Your task to perform on an android device: Search for "logitech g933" on bestbuy, select the first entry, add it to the cart, then select checkout. Image 0: 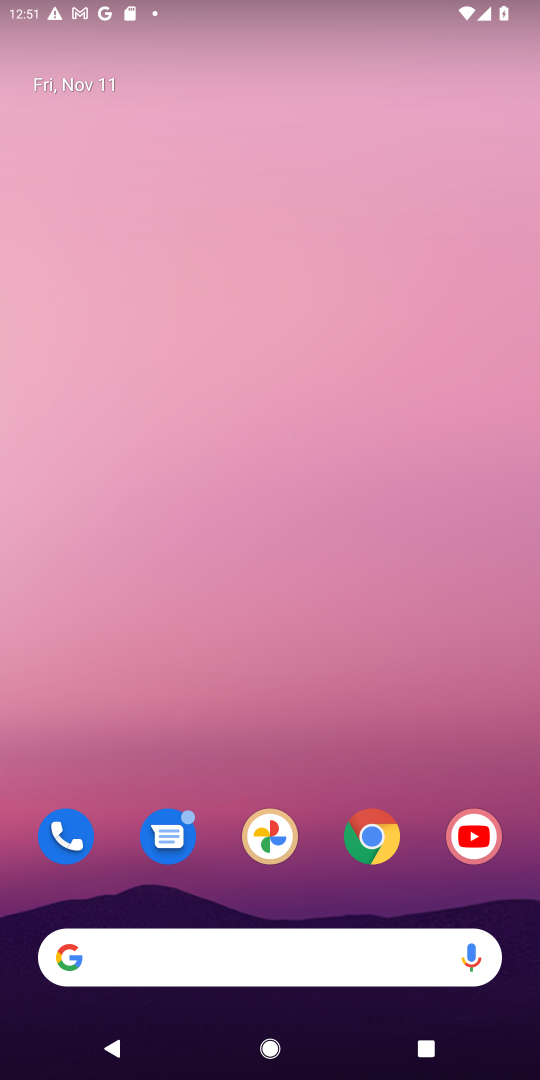
Step 0: click (270, 959)
Your task to perform on an android device: Search for "logitech g933" on bestbuy, select the first entry, add it to the cart, then select checkout. Image 1: 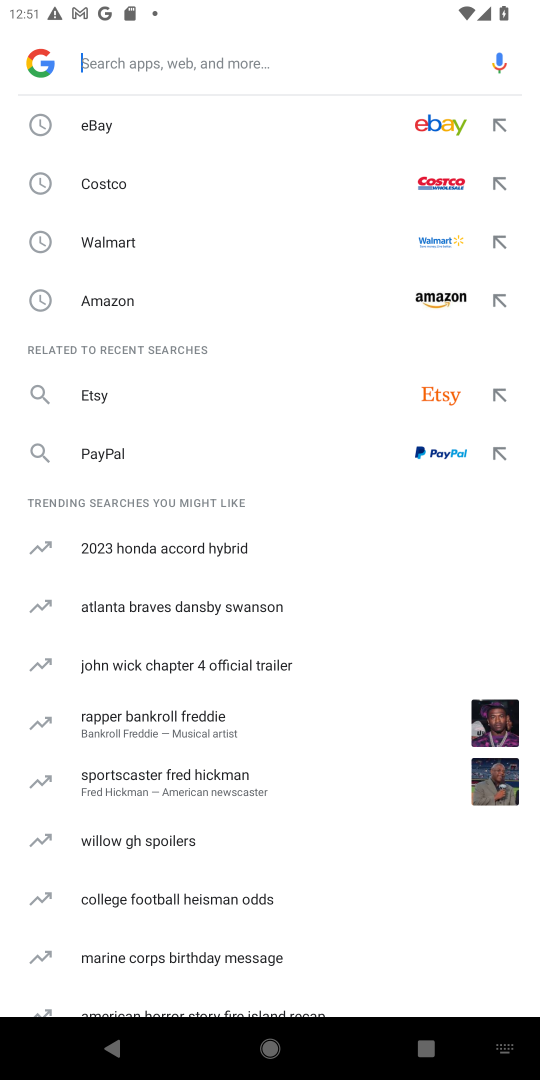
Step 1: type "bestbuy"
Your task to perform on an android device: Search for "logitech g933" on bestbuy, select the first entry, add it to the cart, then select checkout. Image 2: 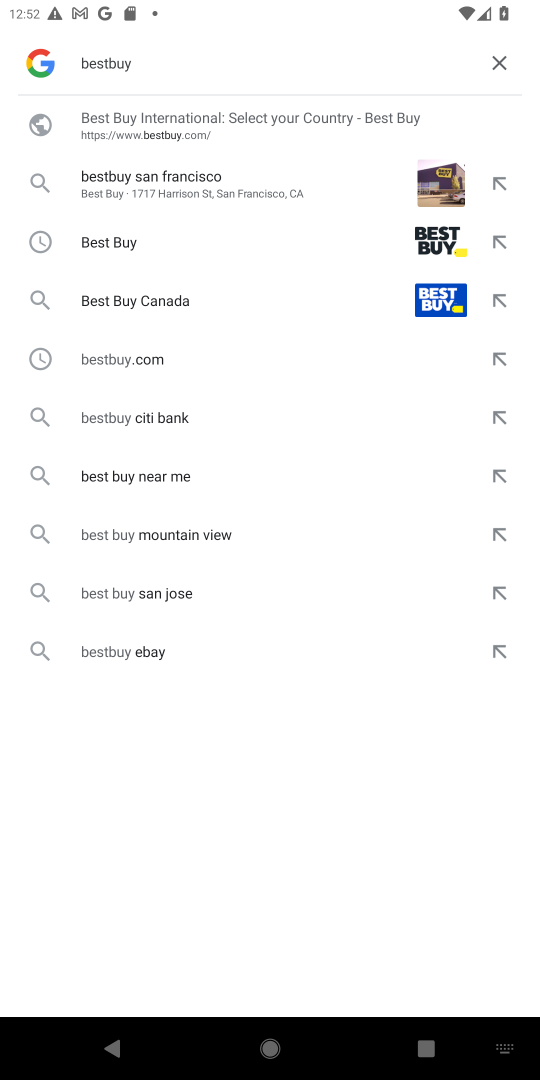
Step 2: click (286, 238)
Your task to perform on an android device: Search for "logitech g933" on bestbuy, select the first entry, add it to the cart, then select checkout. Image 3: 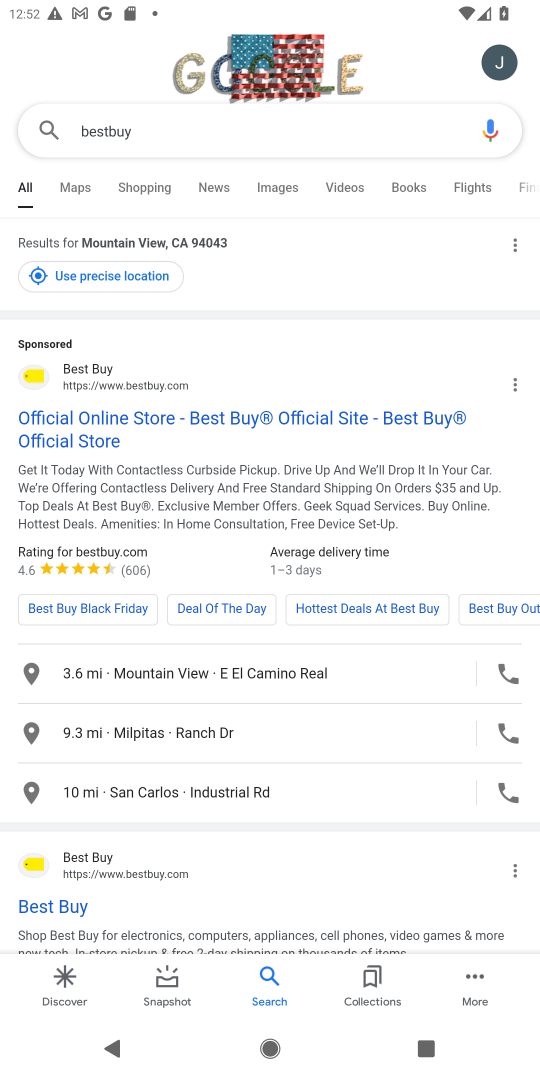
Step 3: click (65, 411)
Your task to perform on an android device: Search for "logitech g933" on bestbuy, select the first entry, add it to the cart, then select checkout. Image 4: 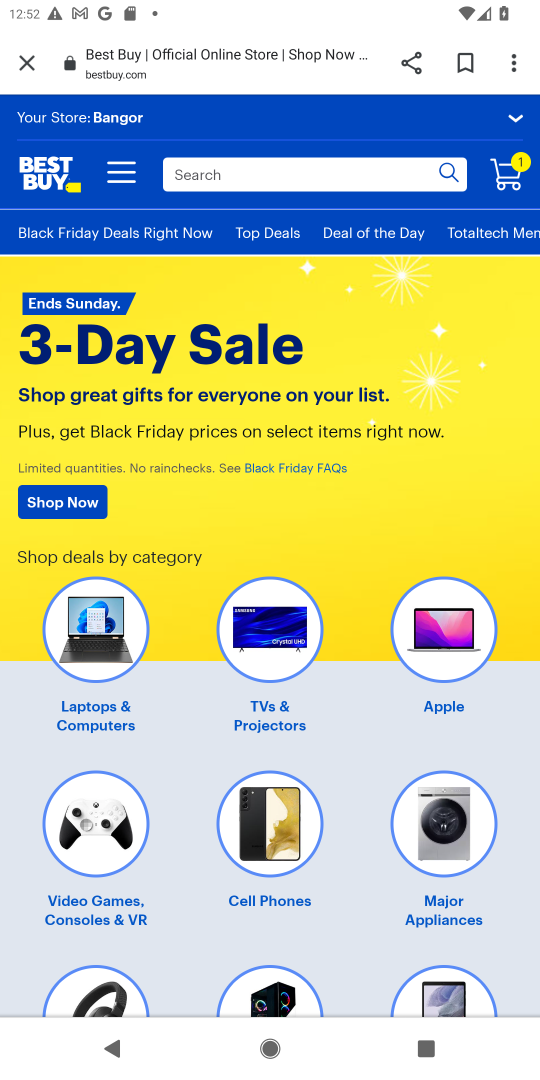
Step 4: click (256, 165)
Your task to perform on an android device: Search for "logitech g933" on bestbuy, select the first entry, add it to the cart, then select checkout. Image 5: 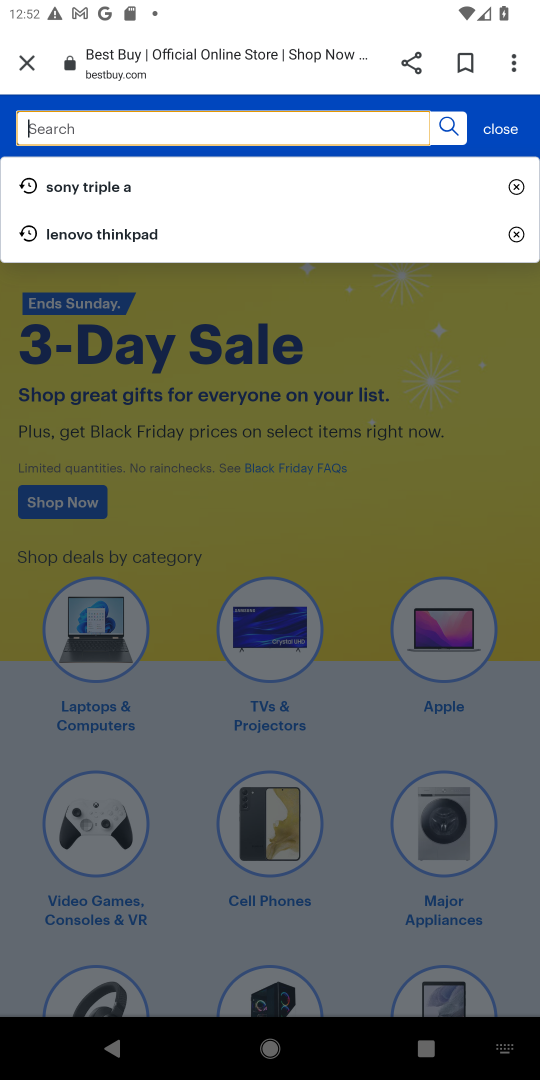
Step 5: type "logitech g933"
Your task to perform on an android device: Search for "logitech g933" on bestbuy, select the first entry, add it to the cart, then select checkout. Image 6: 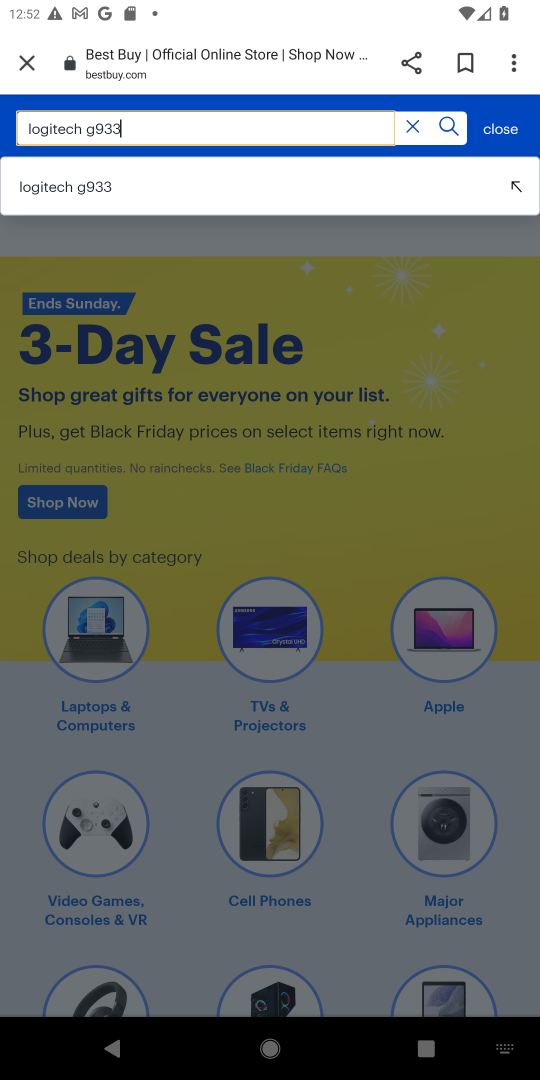
Step 6: click (91, 177)
Your task to perform on an android device: Search for "logitech g933" on bestbuy, select the first entry, add it to the cart, then select checkout. Image 7: 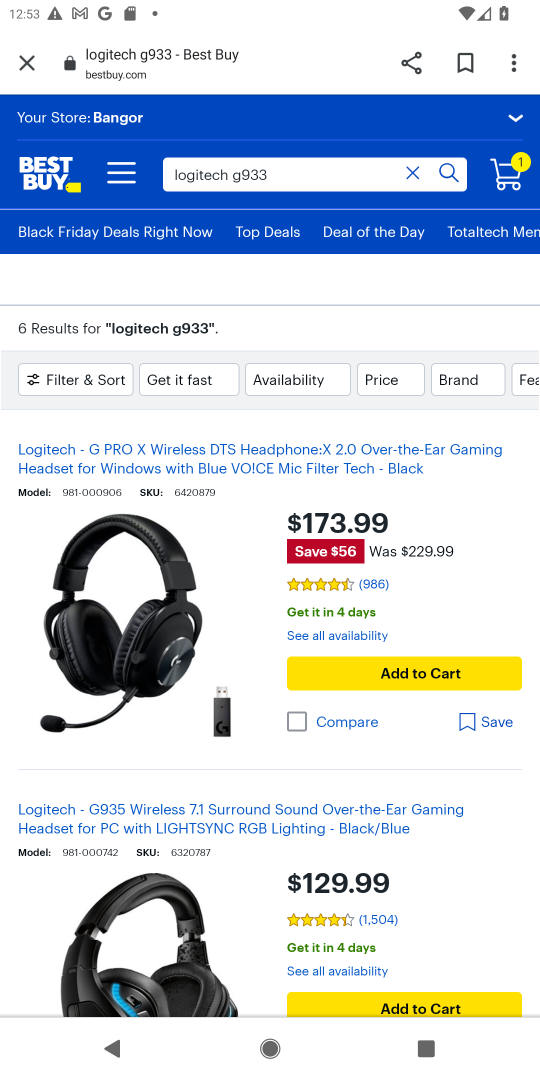
Step 7: click (370, 562)
Your task to perform on an android device: Search for "logitech g933" on bestbuy, select the first entry, add it to the cart, then select checkout. Image 8: 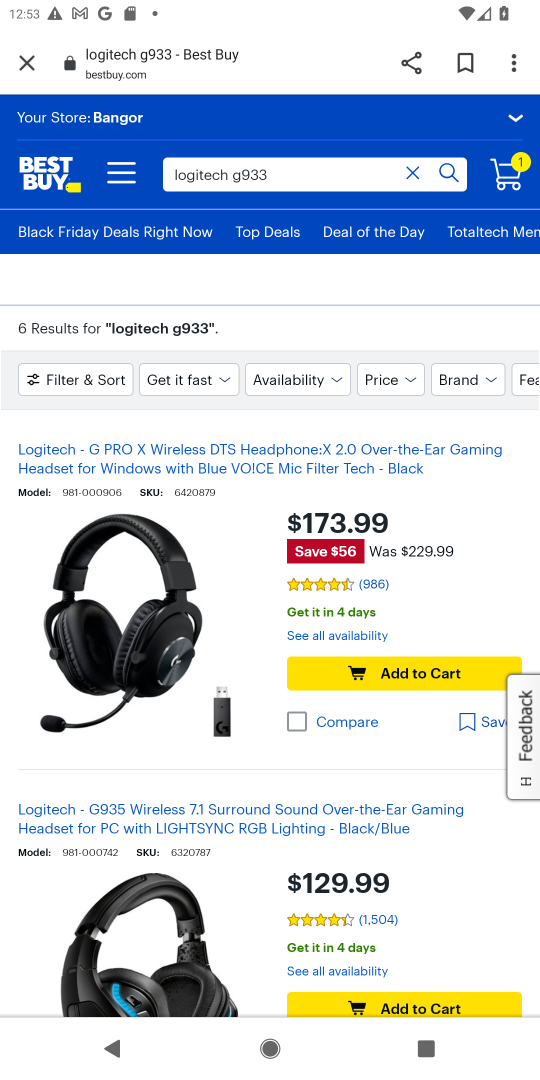
Step 8: click (378, 675)
Your task to perform on an android device: Search for "logitech g933" on bestbuy, select the first entry, add it to the cart, then select checkout. Image 9: 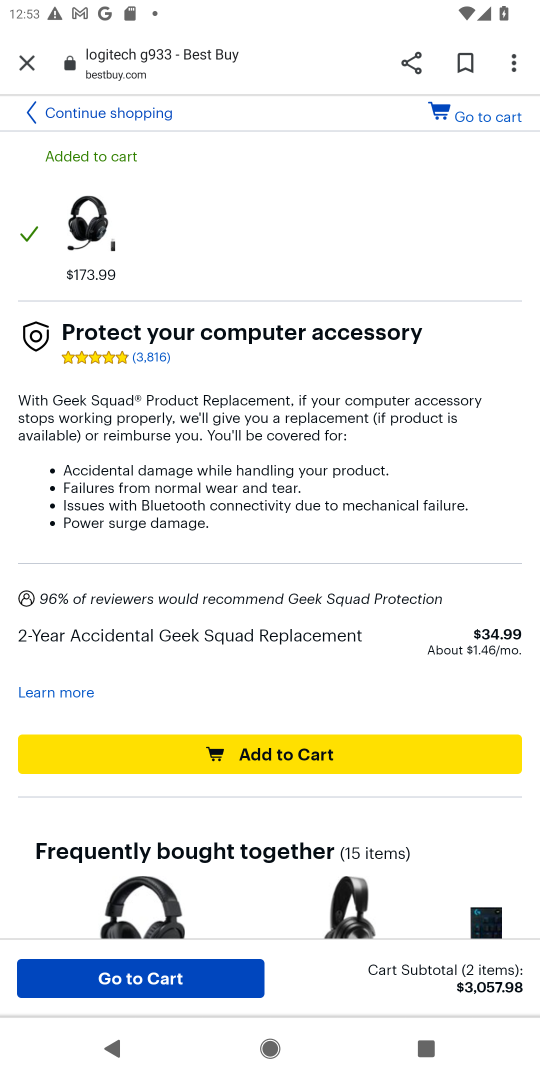
Step 9: click (453, 122)
Your task to perform on an android device: Search for "logitech g933" on bestbuy, select the first entry, add it to the cart, then select checkout. Image 10: 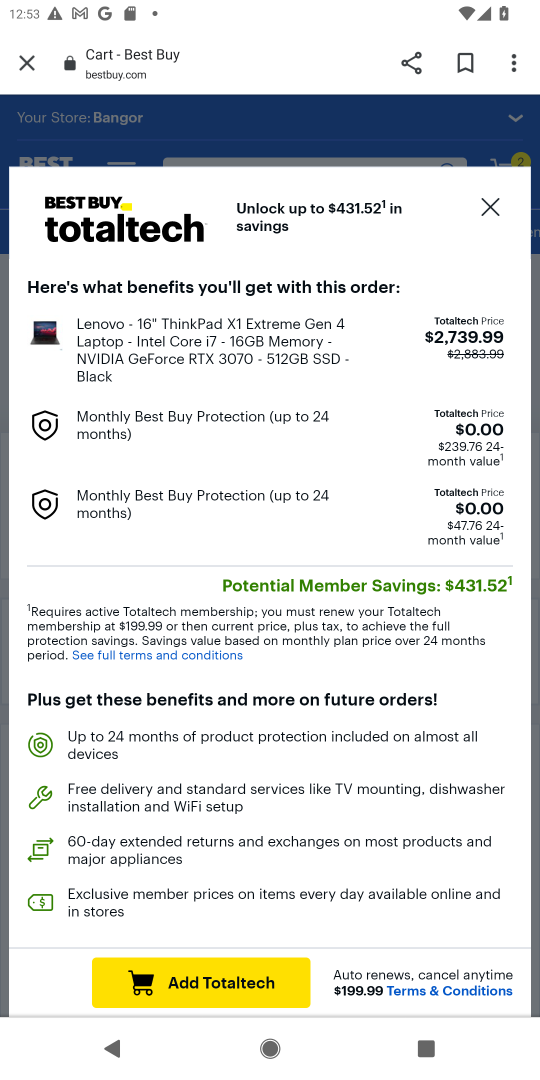
Step 10: click (487, 206)
Your task to perform on an android device: Search for "logitech g933" on bestbuy, select the first entry, add it to the cart, then select checkout. Image 11: 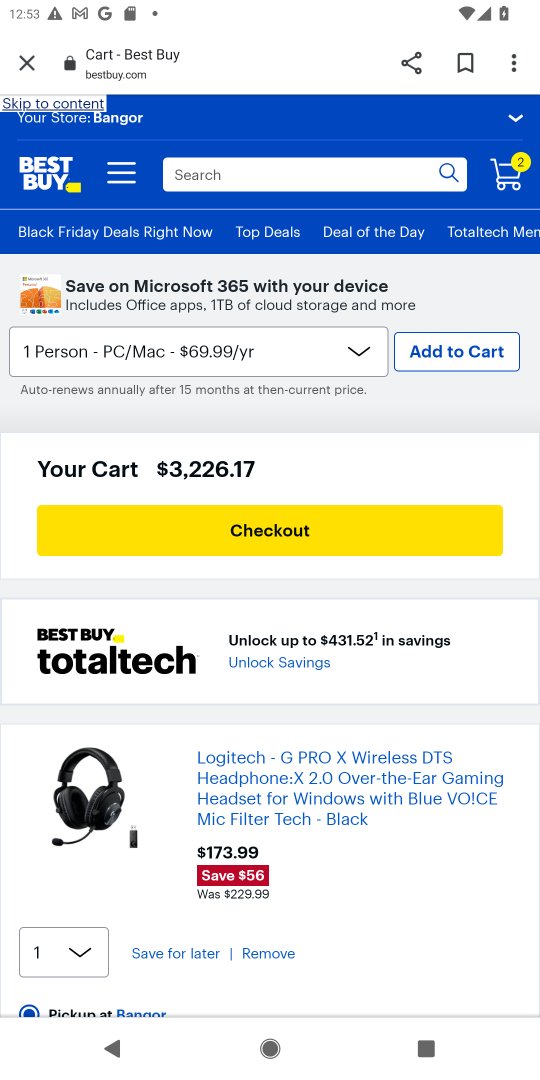
Step 11: click (517, 182)
Your task to perform on an android device: Search for "logitech g933" on bestbuy, select the first entry, add it to the cart, then select checkout. Image 12: 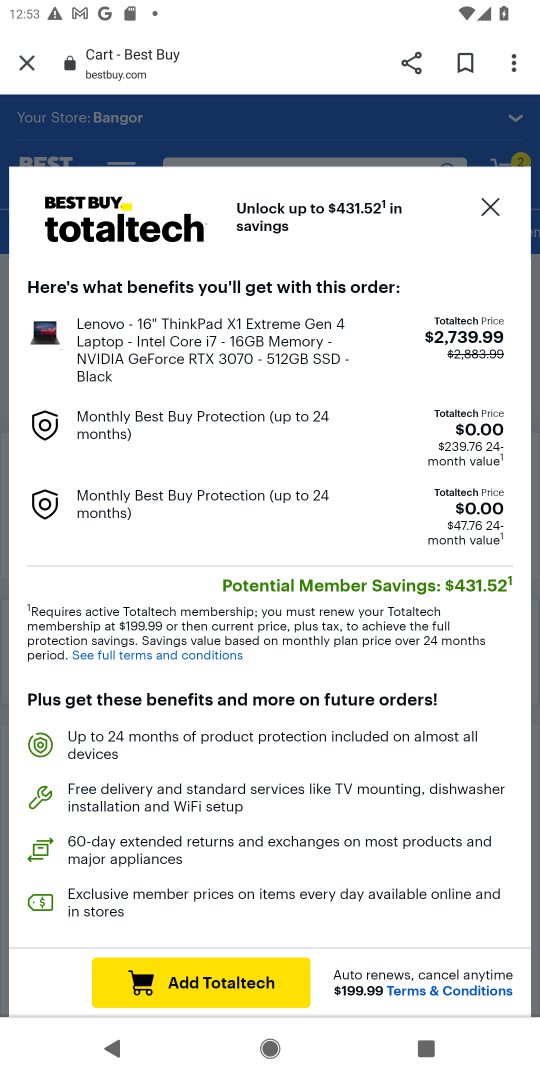
Step 12: click (482, 210)
Your task to perform on an android device: Search for "logitech g933" on bestbuy, select the first entry, add it to the cart, then select checkout. Image 13: 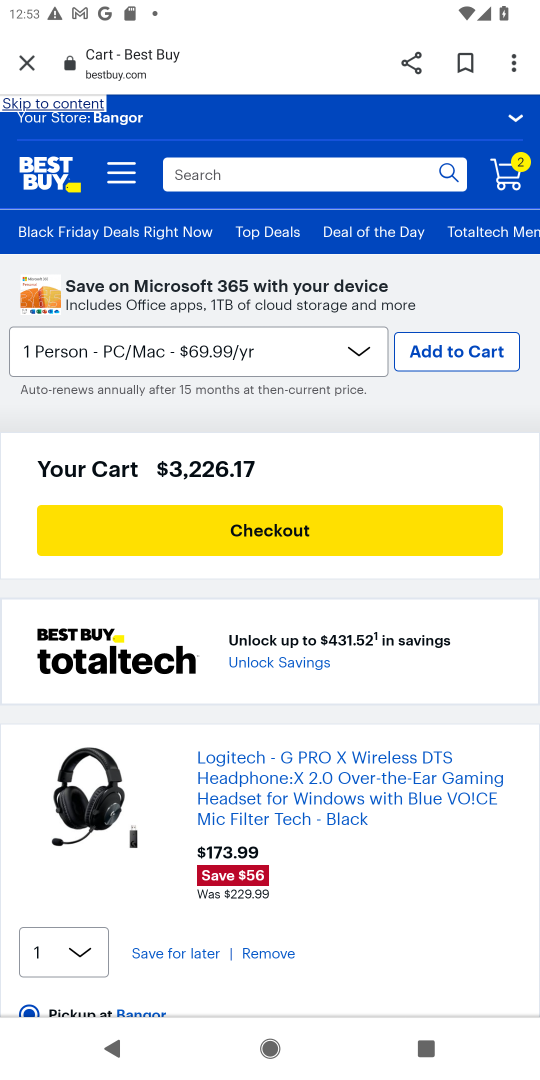
Step 13: click (270, 518)
Your task to perform on an android device: Search for "logitech g933" on bestbuy, select the first entry, add it to the cart, then select checkout. Image 14: 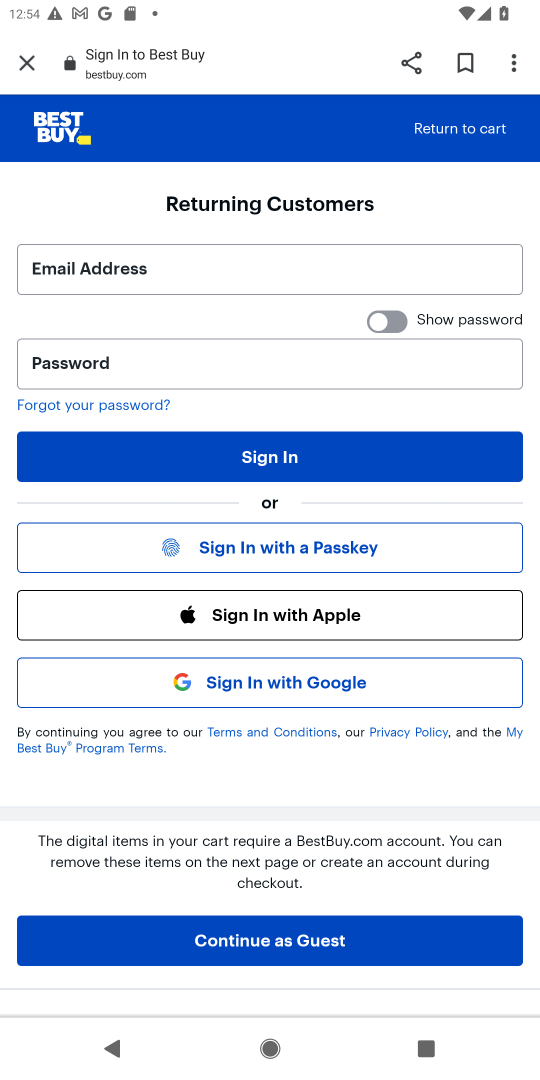
Step 14: task complete